Your task to perform on an android device: check google app version Image 0: 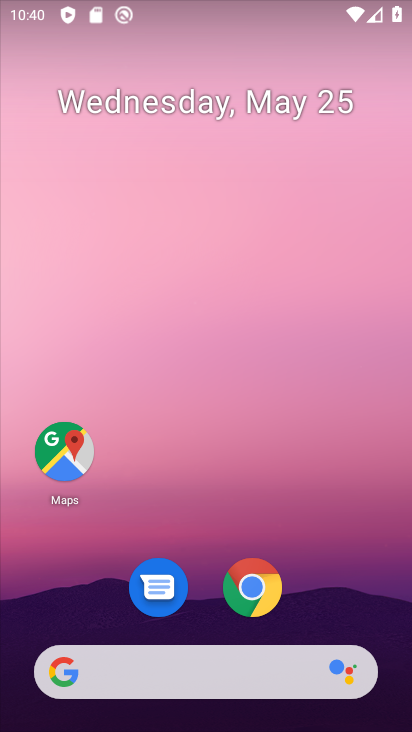
Step 0: drag from (321, 562) to (265, 2)
Your task to perform on an android device: check google app version Image 1: 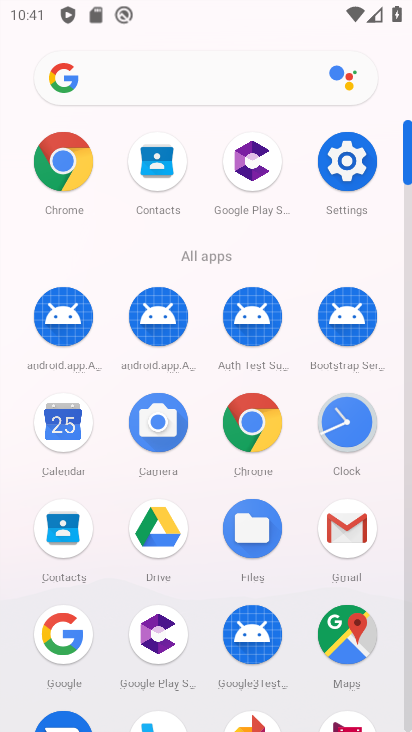
Step 1: drag from (14, 614) to (27, 220)
Your task to perform on an android device: check google app version Image 2: 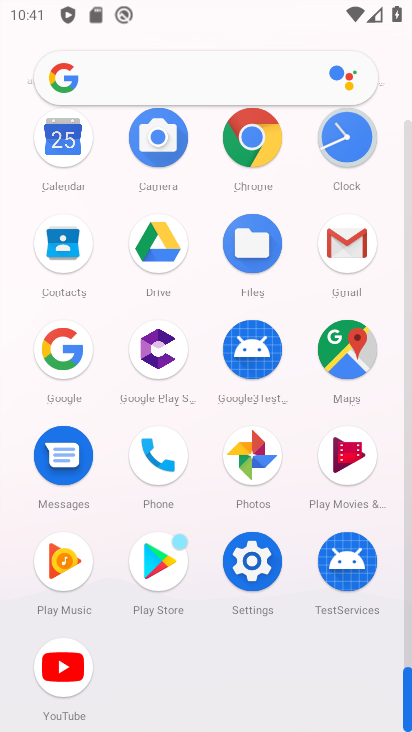
Step 2: click (62, 343)
Your task to perform on an android device: check google app version Image 3: 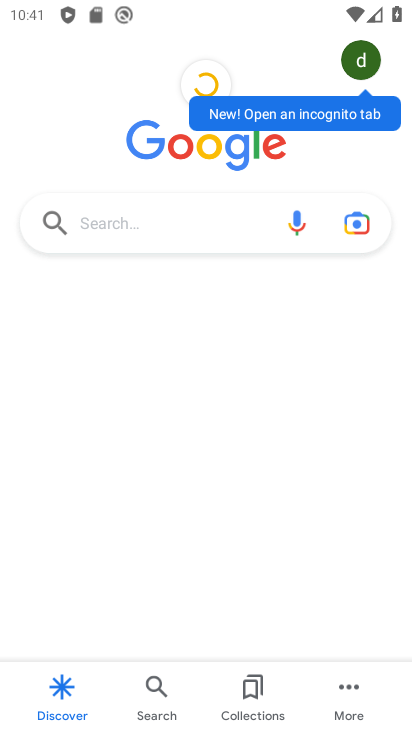
Step 3: click (351, 684)
Your task to perform on an android device: check google app version Image 4: 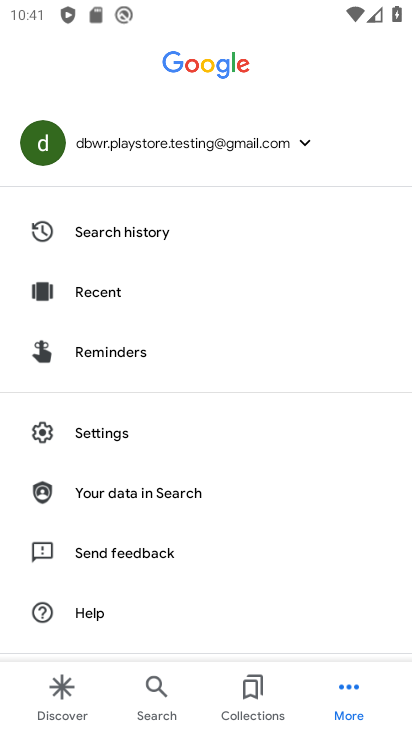
Step 4: click (350, 684)
Your task to perform on an android device: check google app version Image 5: 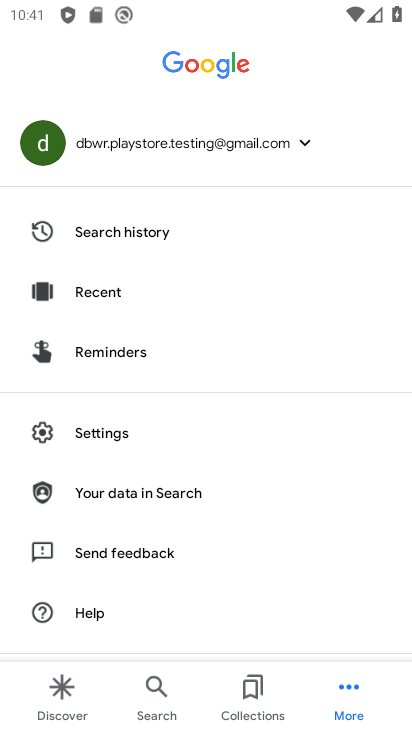
Step 5: click (105, 430)
Your task to perform on an android device: check google app version Image 6: 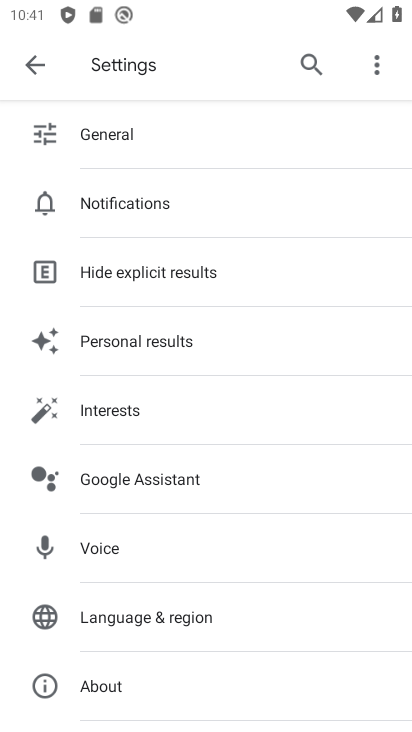
Step 6: click (134, 678)
Your task to perform on an android device: check google app version Image 7: 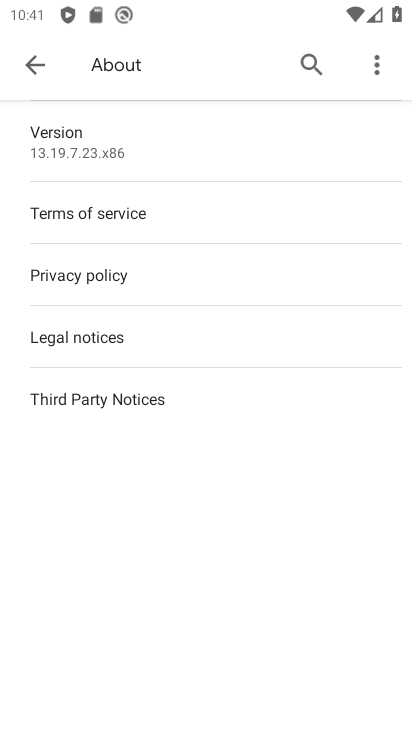
Step 7: task complete